Your task to perform on an android device: turn off location history Image 0: 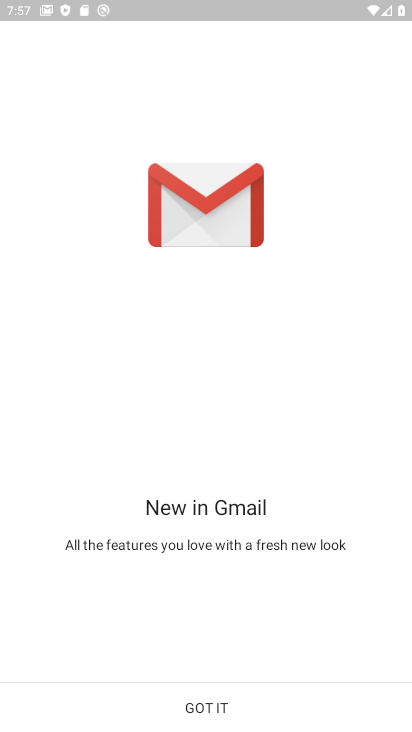
Step 0: press home button
Your task to perform on an android device: turn off location history Image 1: 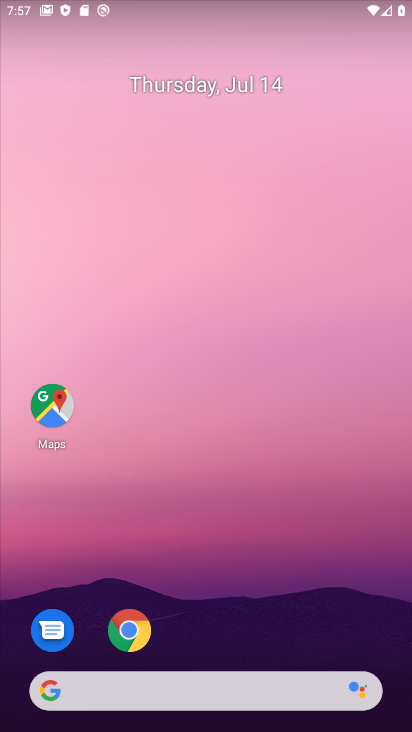
Step 1: drag from (268, 704) to (256, 312)
Your task to perform on an android device: turn off location history Image 2: 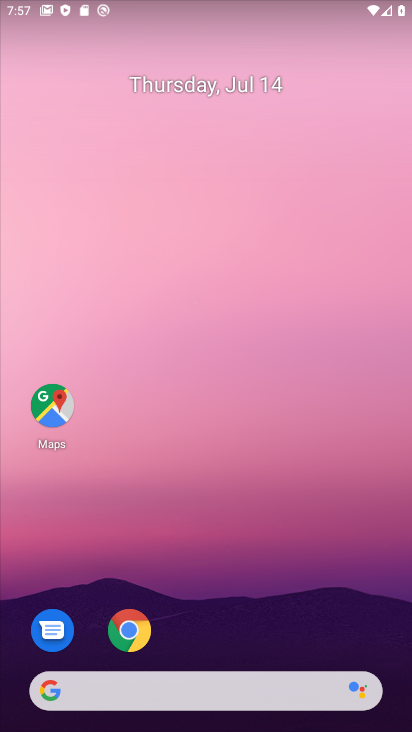
Step 2: drag from (199, 716) to (177, 251)
Your task to perform on an android device: turn off location history Image 3: 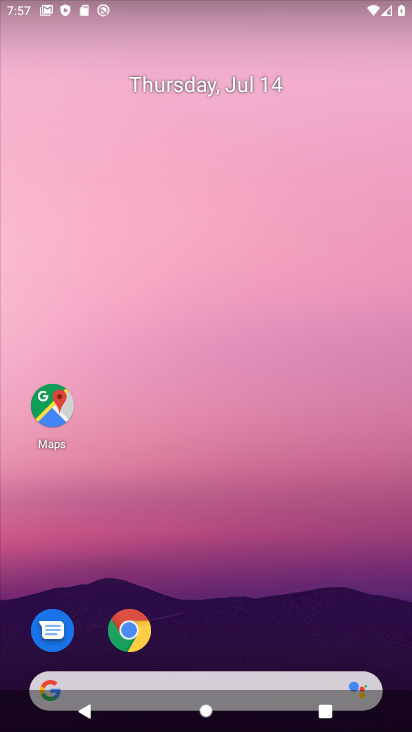
Step 3: drag from (254, 727) to (266, 338)
Your task to perform on an android device: turn off location history Image 4: 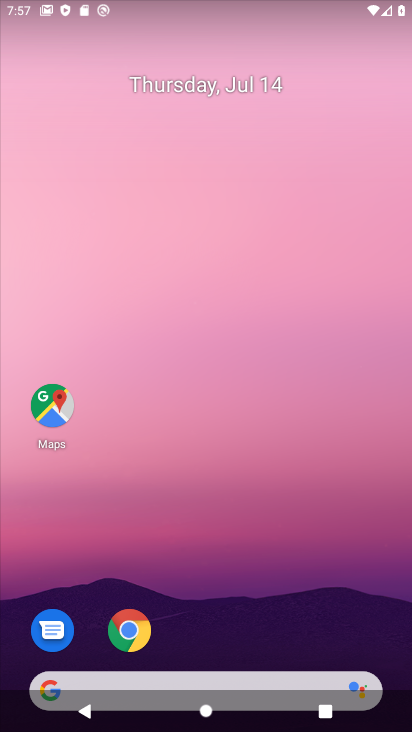
Step 4: drag from (261, 708) to (222, 306)
Your task to perform on an android device: turn off location history Image 5: 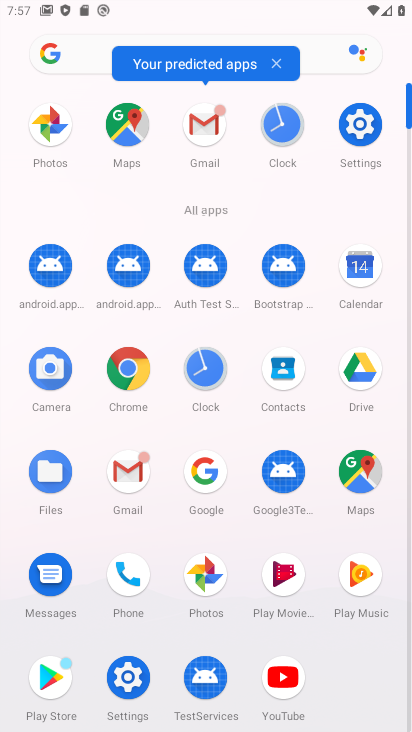
Step 5: click (363, 126)
Your task to perform on an android device: turn off location history Image 6: 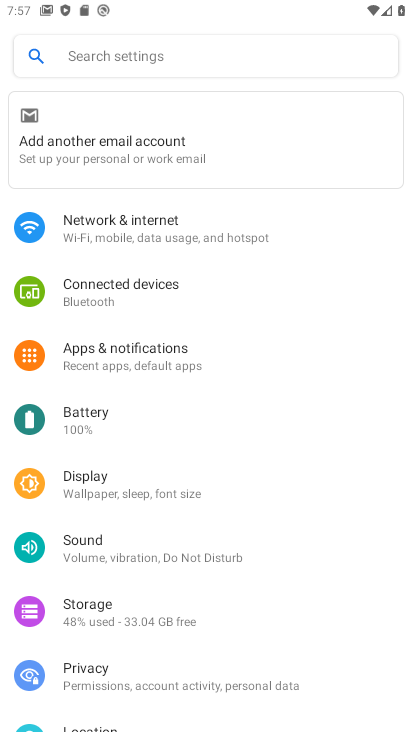
Step 6: click (88, 725)
Your task to perform on an android device: turn off location history Image 7: 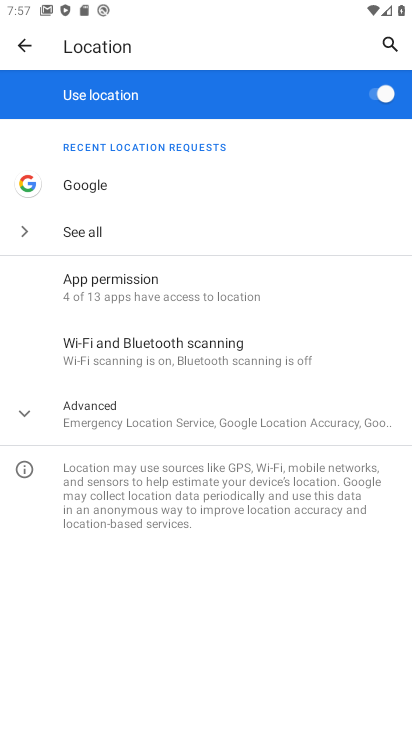
Step 7: click (378, 95)
Your task to perform on an android device: turn off location history Image 8: 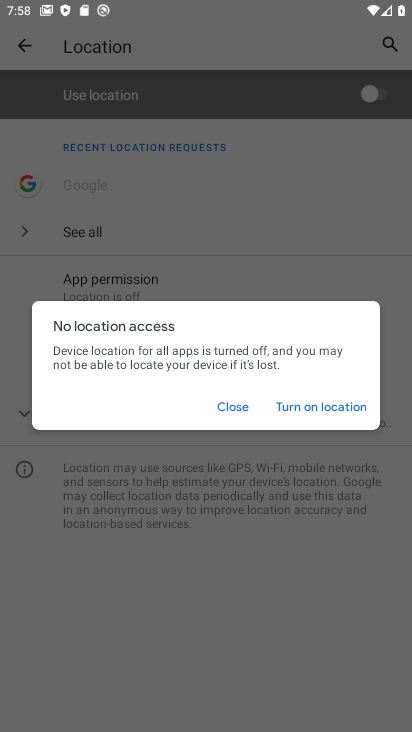
Step 8: click (222, 404)
Your task to perform on an android device: turn off location history Image 9: 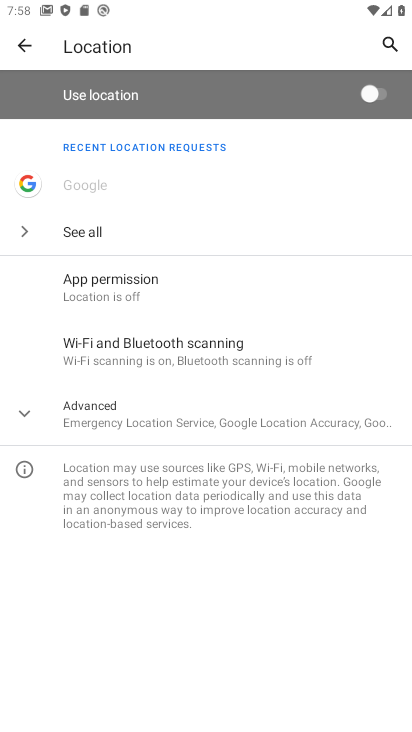
Step 9: task complete